Your task to perform on an android device: Open Google Chrome and open the bookmarks view Image 0: 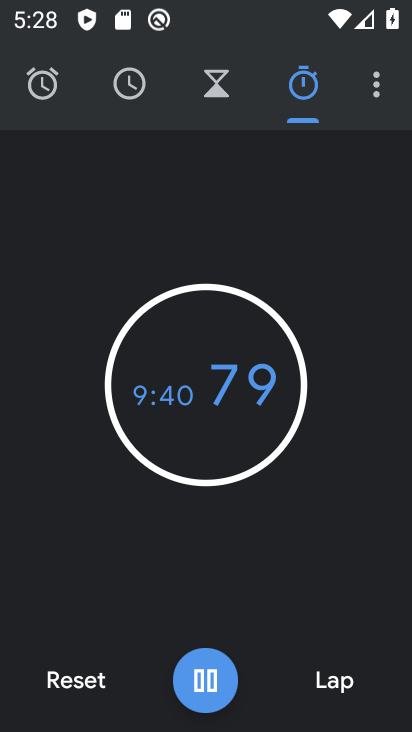
Step 0: press home button
Your task to perform on an android device: Open Google Chrome and open the bookmarks view Image 1: 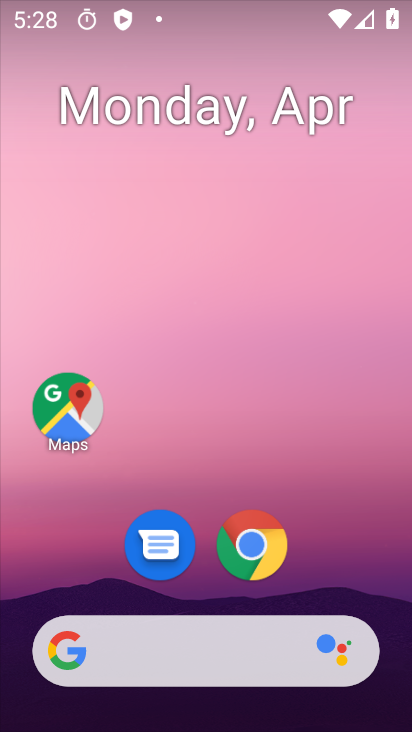
Step 1: drag from (308, 557) to (326, 189)
Your task to perform on an android device: Open Google Chrome and open the bookmarks view Image 2: 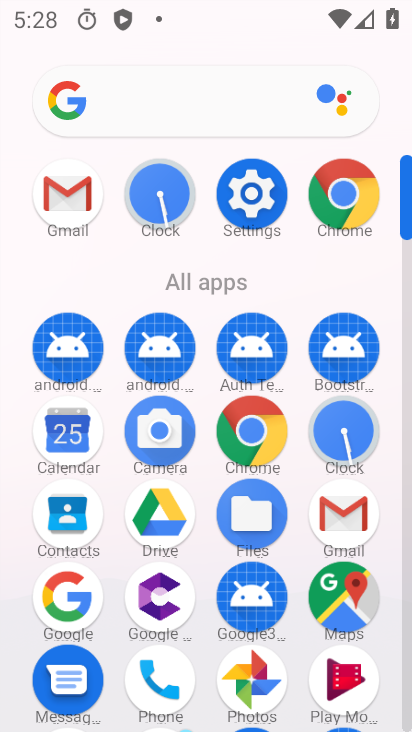
Step 2: click (260, 437)
Your task to perform on an android device: Open Google Chrome and open the bookmarks view Image 3: 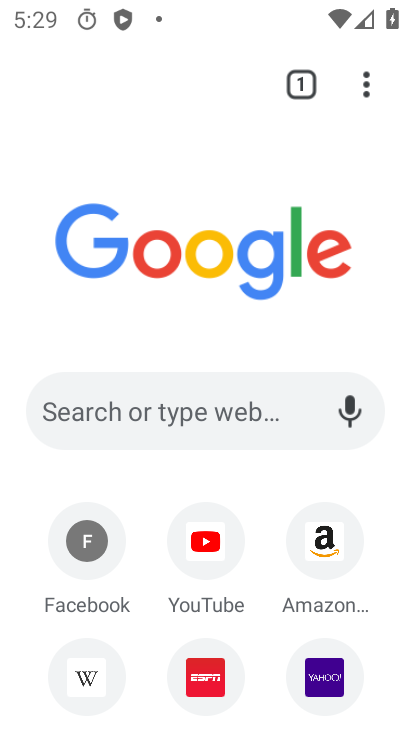
Step 3: task complete